Your task to perform on an android device: turn off location Image 0: 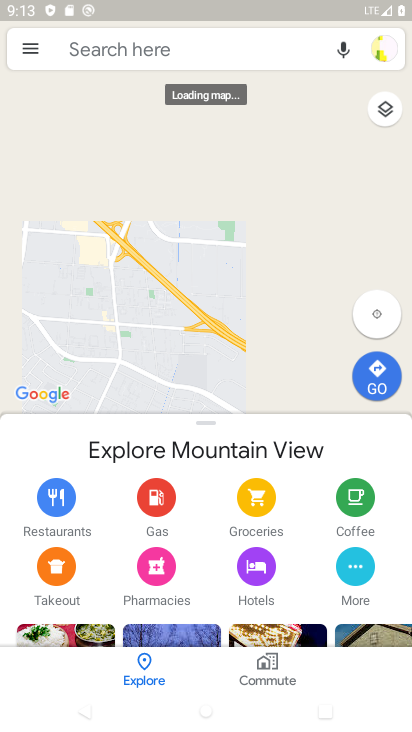
Step 0: press home button
Your task to perform on an android device: turn off location Image 1: 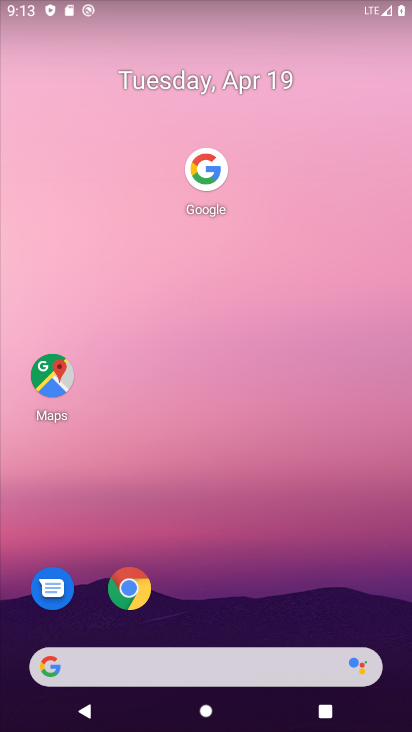
Step 1: drag from (226, 509) to (385, 15)
Your task to perform on an android device: turn off location Image 2: 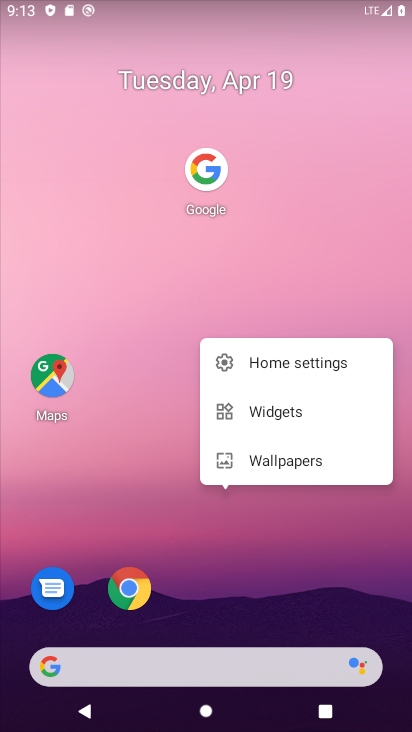
Step 2: click (130, 488)
Your task to perform on an android device: turn off location Image 3: 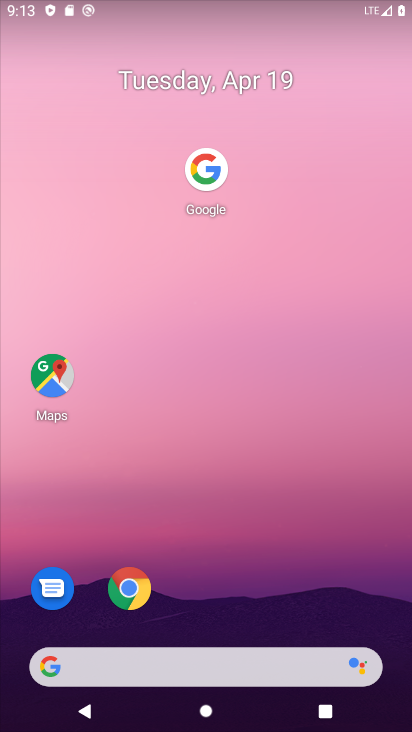
Step 3: drag from (212, 585) to (224, 178)
Your task to perform on an android device: turn off location Image 4: 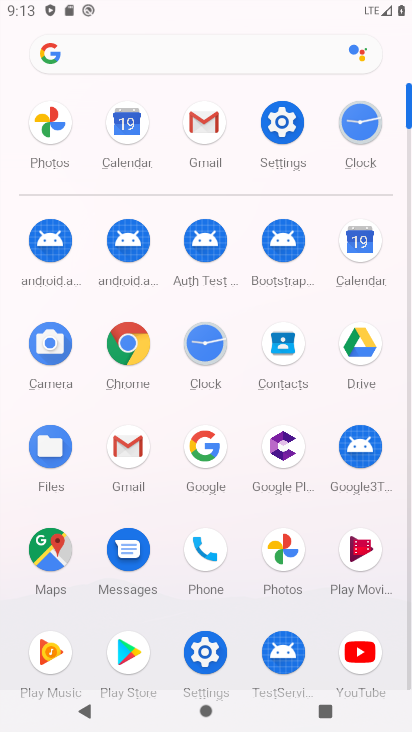
Step 4: click (288, 127)
Your task to perform on an android device: turn off location Image 5: 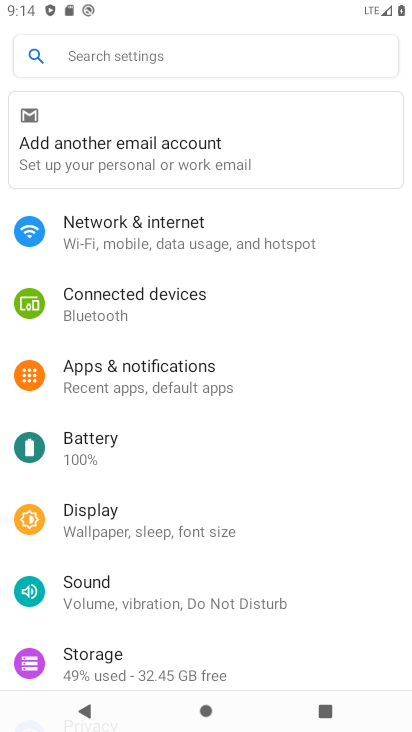
Step 5: drag from (162, 558) to (141, 189)
Your task to perform on an android device: turn off location Image 6: 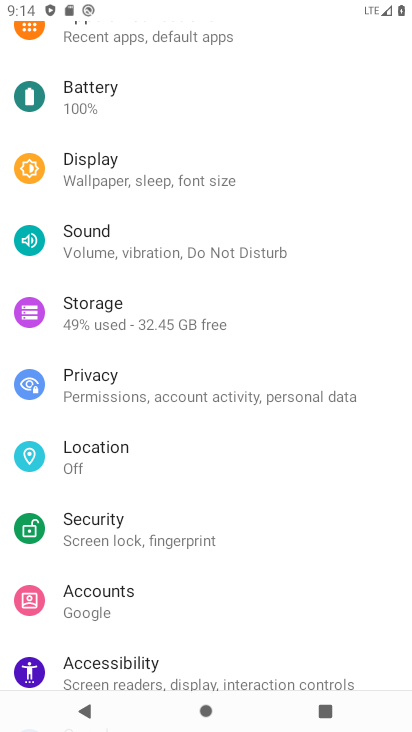
Step 6: click (91, 444)
Your task to perform on an android device: turn off location Image 7: 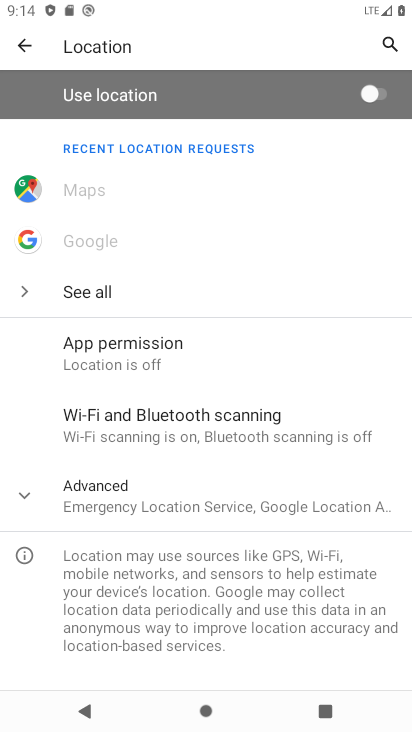
Step 7: task complete